Your task to perform on an android device: check out phone information Image 0: 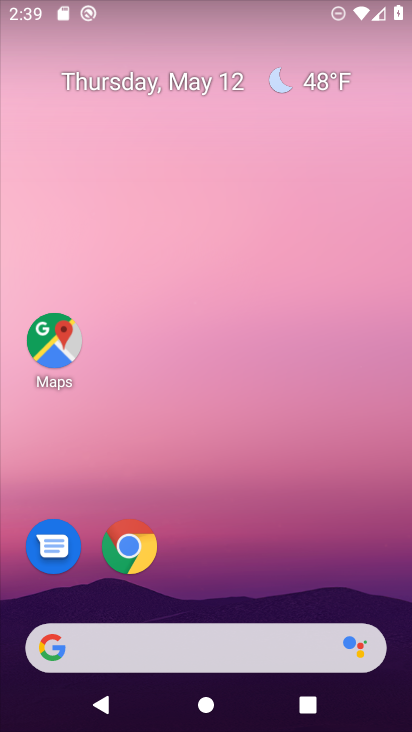
Step 0: drag from (257, 684) to (247, 226)
Your task to perform on an android device: check out phone information Image 1: 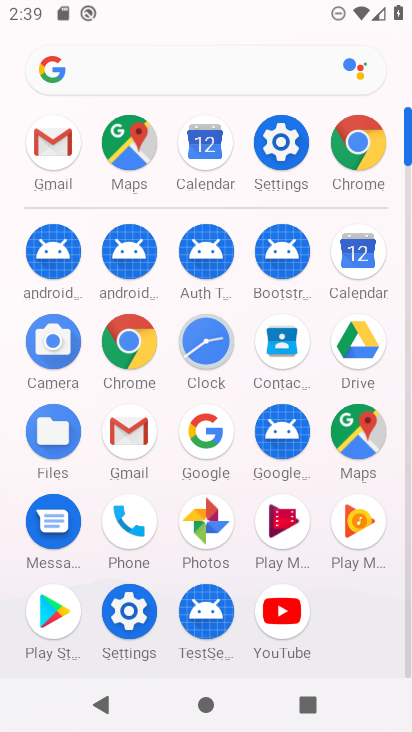
Step 1: click (267, 150)
Your task to perform on an android device: check out phone information Image 2: 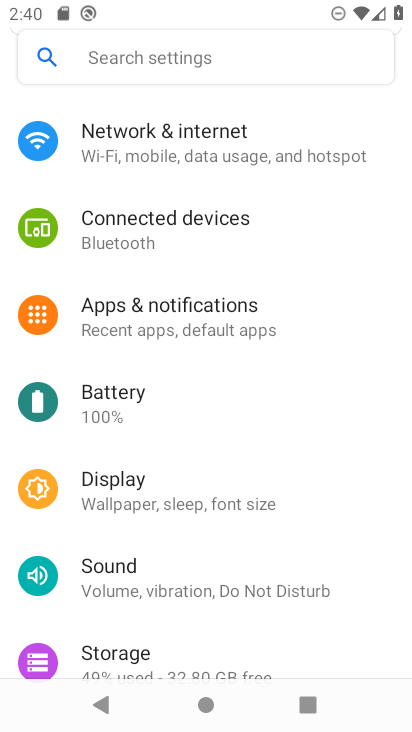
Step 2: click (148, 52)
Your task to perform on an android device: check out phone information Image 3: 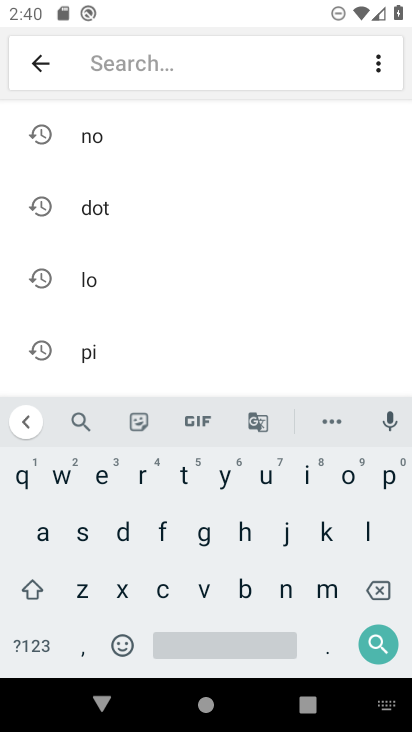
Step 3: click (46, 521)
Your task to perform on an android device: check out phone information Image 4: 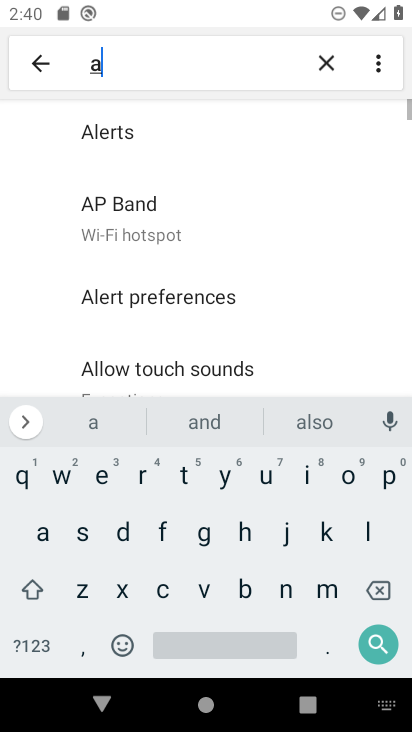
Step 4: click (237, 581)
Your task to perform on an android device: check out phone information Image 5: 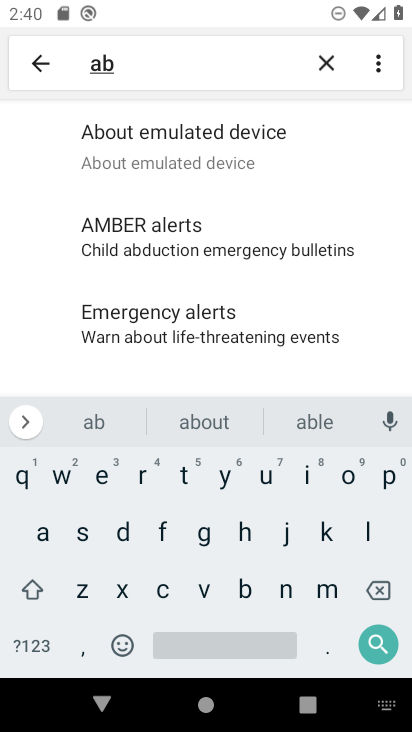
Step 5: click (211, 150)
Your task to perform on an android device: check out phone information Image 6: 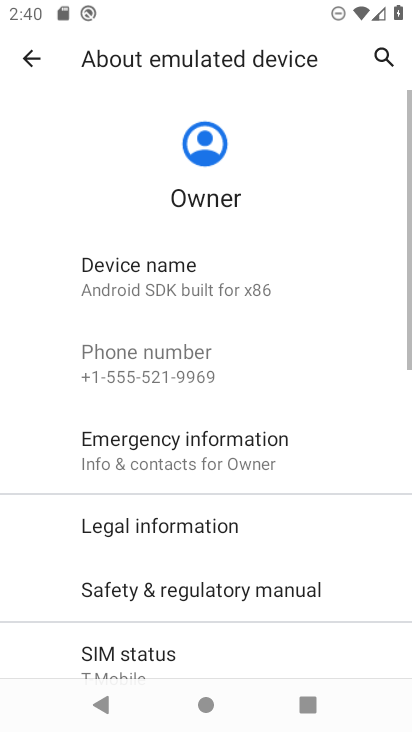
Step 6: task complete